Your task to perform on an android device: Open sound settings Image 0: 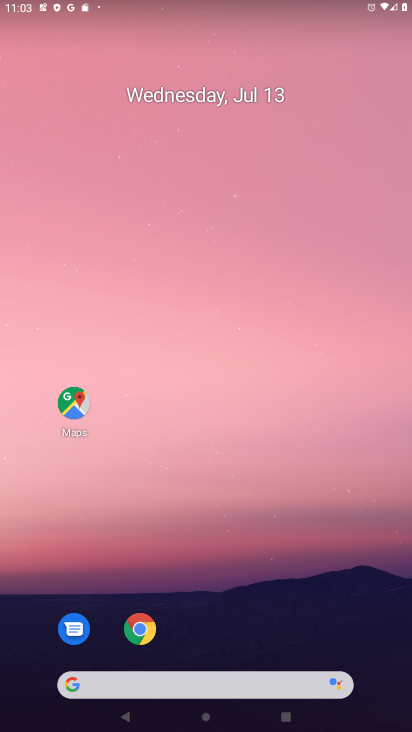
Step 0: drag from (254, 642) to (300, 148)
Your task to perform on an android device: Open sound settings Image 1: 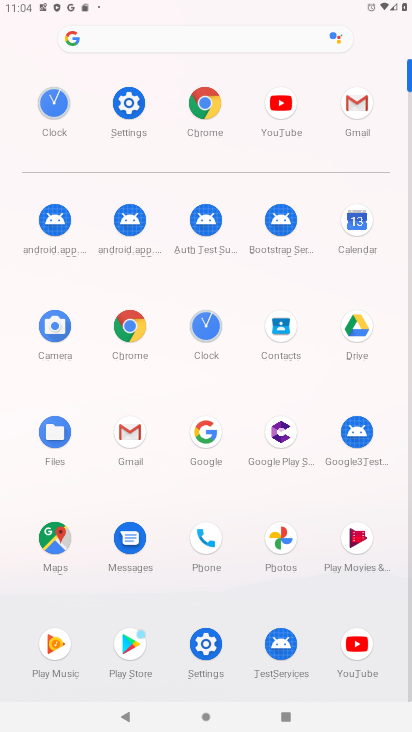
Step 1: click (200, 658)
Your task to perform on an android device: Open sound settings Image 2: 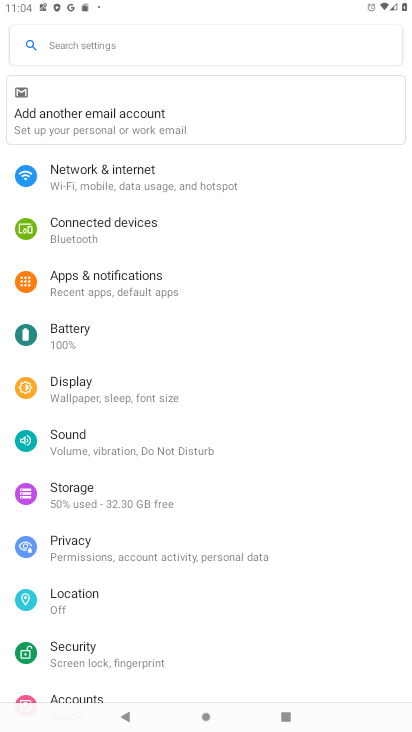
Step 2: click (137, 455)
Your task to perform on an android device: Open sound settings Image 3: 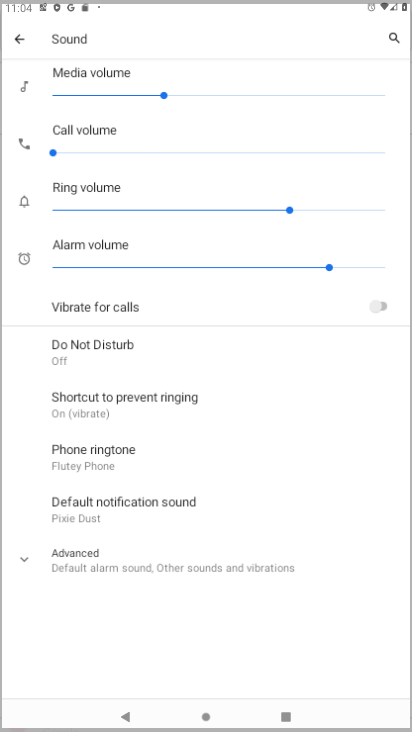
Step 3: task complete